Your task to perform on an android device: turn on translation in the chrome app Image 0: 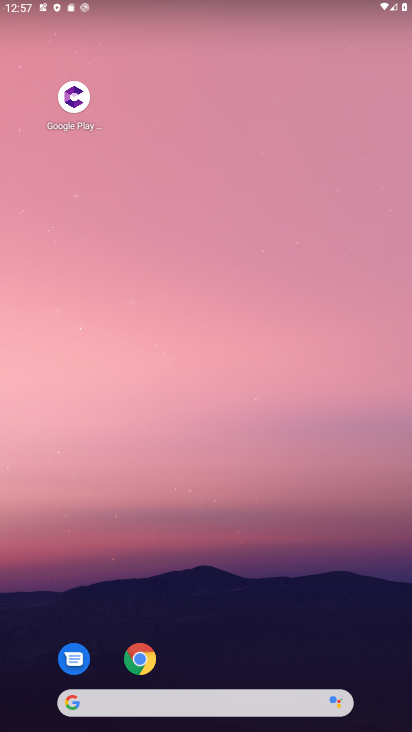
Step 0: click (140, 663)
Your task to perform on an android device: turn on translation in the chrome app Image 1: 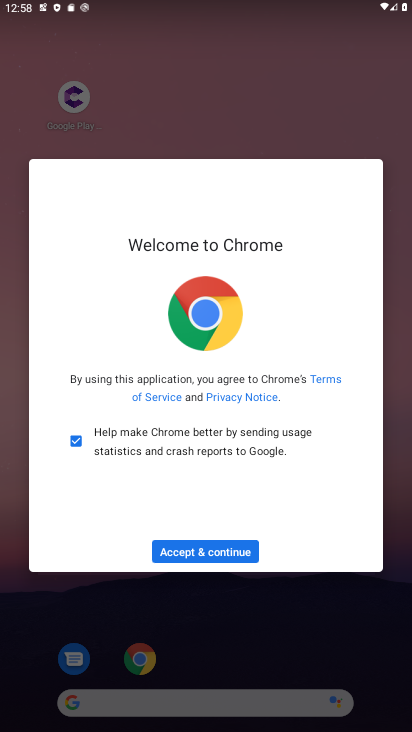
Step 1: click (213, 551)
Your task to perform on an android device: turn on translation in the chrome app Image 2: 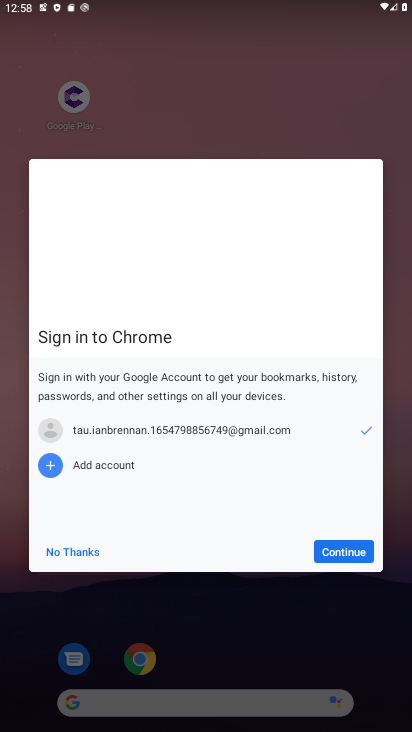
Step 2: click (339, 557)
Your task to perform on an android device: turn on translation in the chrome app Image 3: 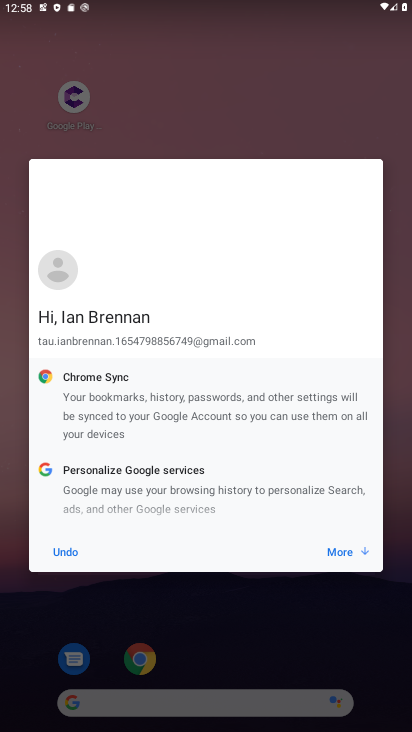
Step 3: click (339, 557)
Your task to perform on an android device: turn on translation in the chrome app Image 4: 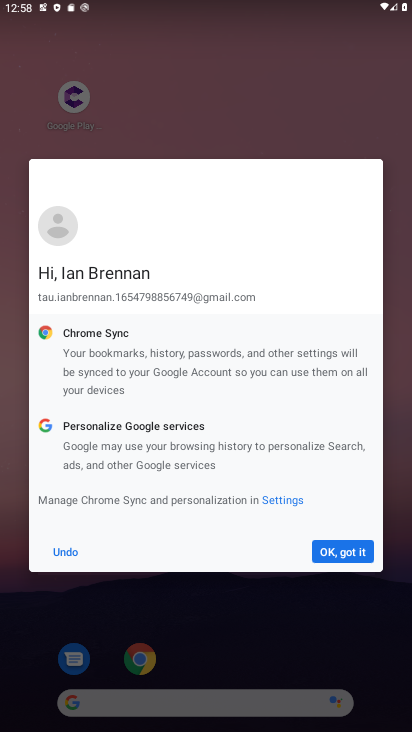
Step 4: click (339, 557)
Your task to perform on an android device: turn on translation in the chrome app Image 5: 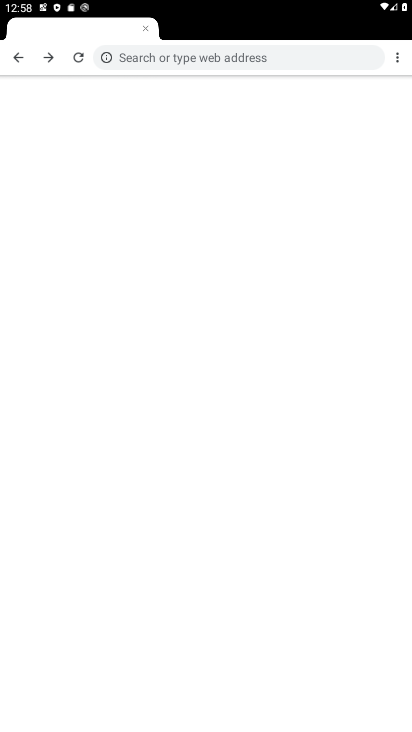
Step 5: click (391, 58)
Your task to perform on an android device: turn on translation in the chrome app Image 6: 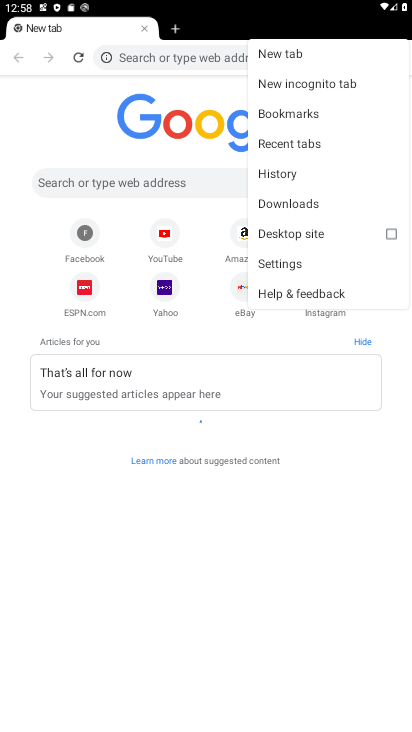
Step 6: click (396, 58)
Your task to perform on an android device: turn on translation in the chrome app Image 7: 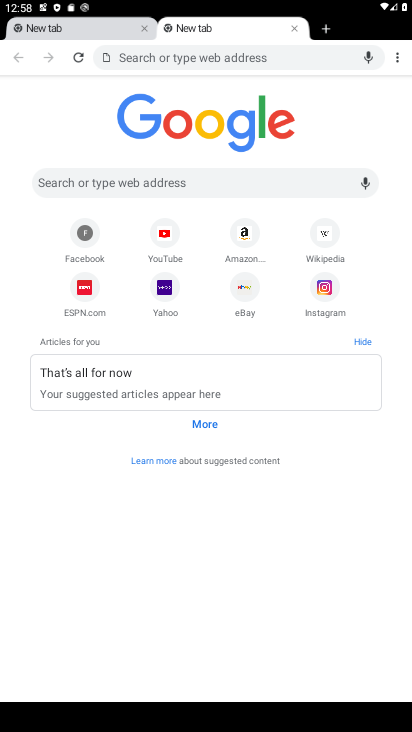
Step 7: click (391, 59)
Your task to perform on an android device: turn on translation in the chrome app Image 8: 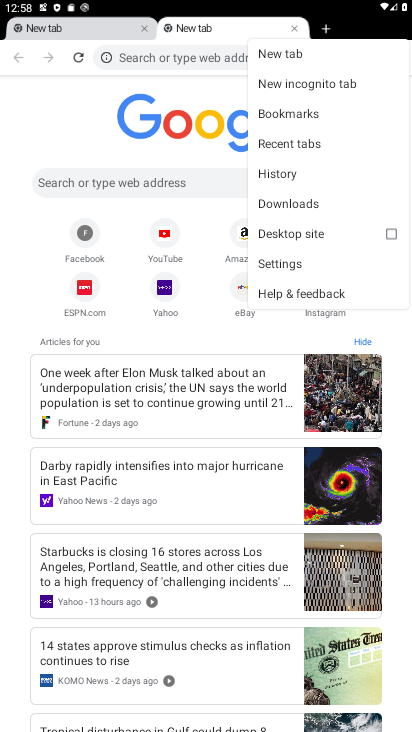
Step 8: click (300, 262)
Your task to perform on an android device: turn on translation in the chrome app Image 9: 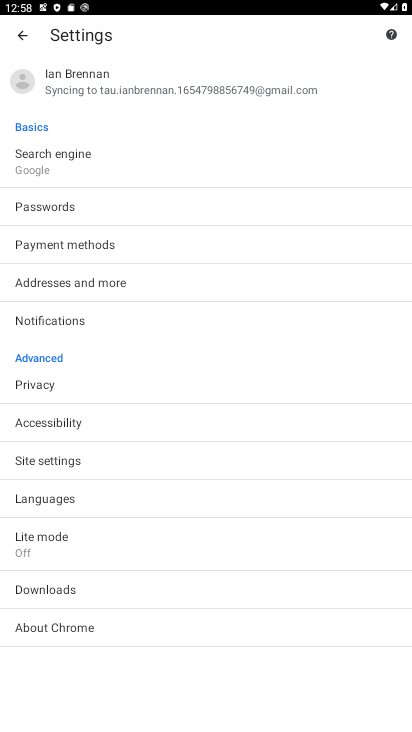
Step 9: click (64, 497)
Your task to perform on an android device: turn on translation in the chrome app Image 10: 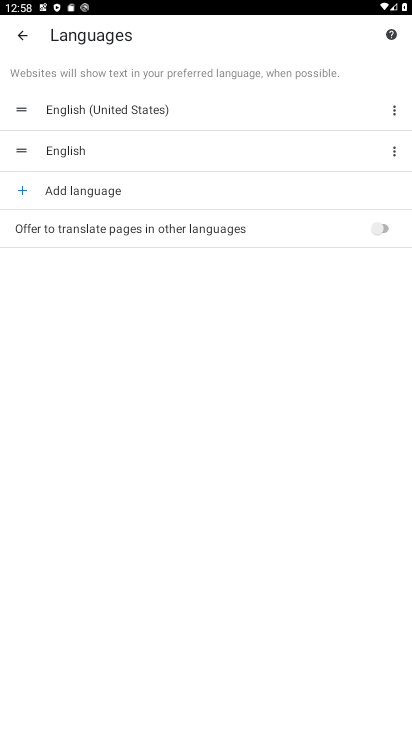
Step 10: click (376, 238)
Your task to perform on an android device: turn on translation in the chrome app Image 11: 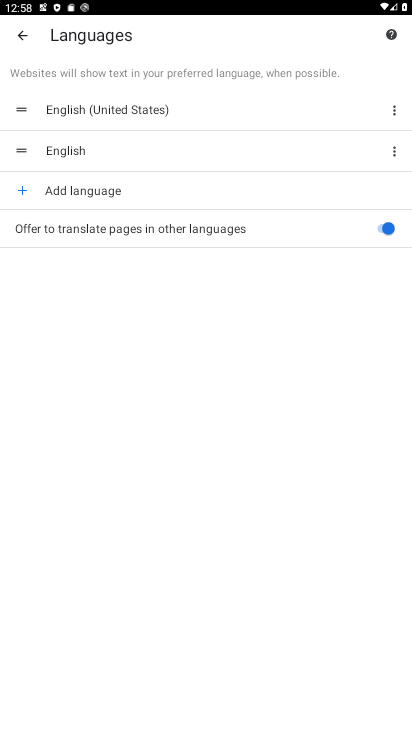
Step 11: task complete